Your task to perform on an android device: What's the weather going to be tomorrow? Image 0: 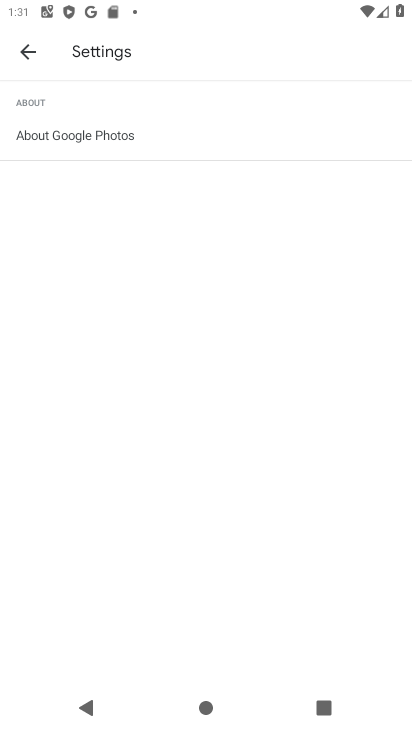
Step 0: press home button
Your task to perform on an android device: What's the weather going to be tomorrow? Image 1: 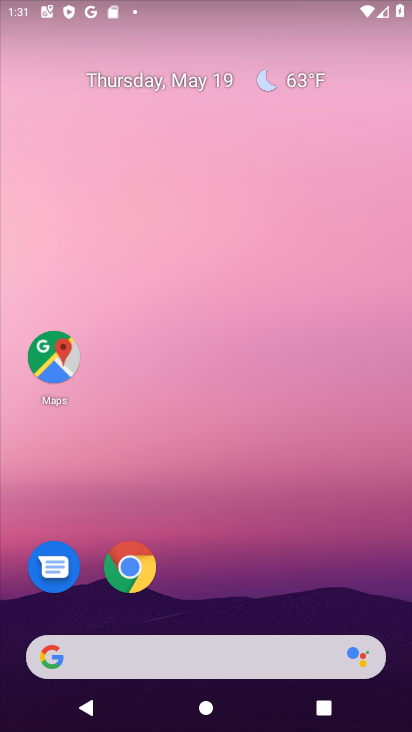
Step 1: drag from (260, 568) to (253, 156)
Your task to perform on an android device: What's the weather going to be tomorrow? Image 2: 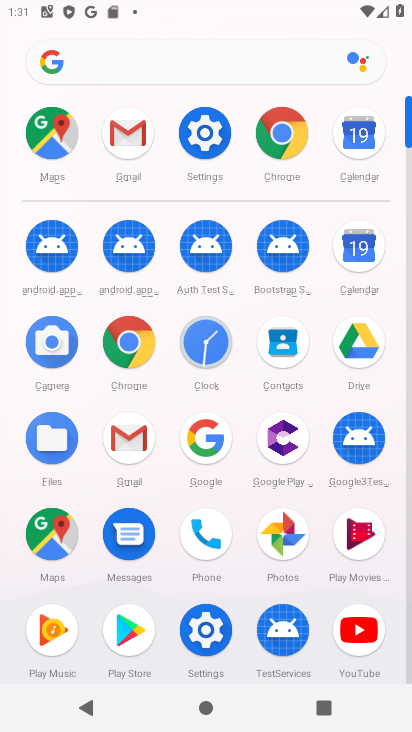
Step 2: click (345, 247)
Your task to perform on an android device: What's the weather going to be tomorrow? Image 3: 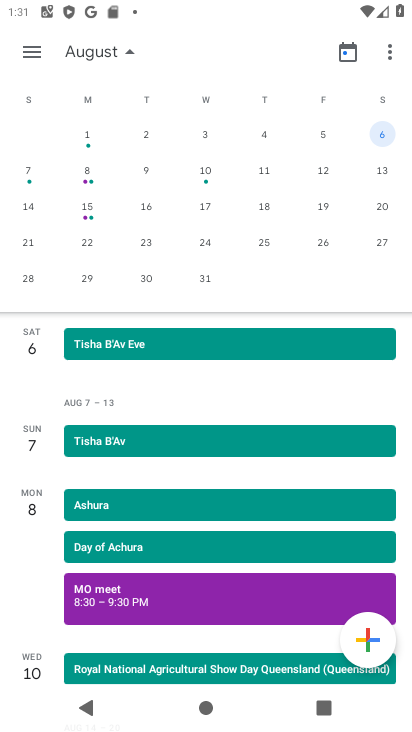
Step 3: click (38, 175)
Your task to perform on an android device: What's the weather going to be tomorrow? Image 4: 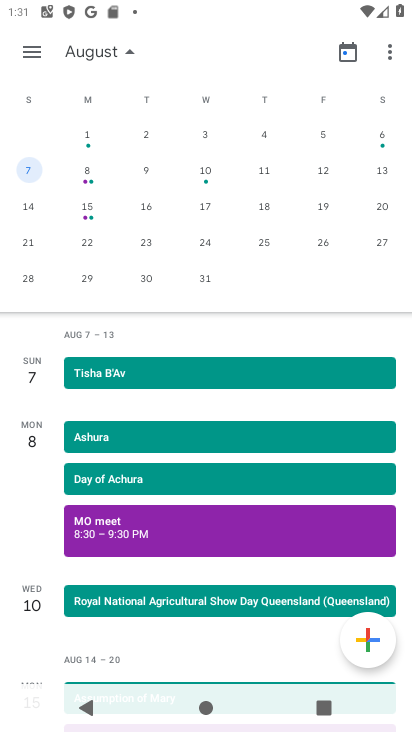
Step 4: task complete